Your task to perform on an android device: toggle sleep mode Image 0: 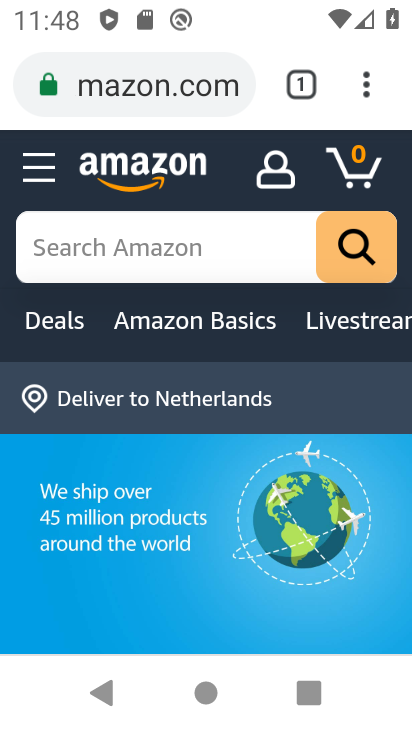
Step 0: press home button
Your task to perform on an android device: toggle sleep mode Image 1: 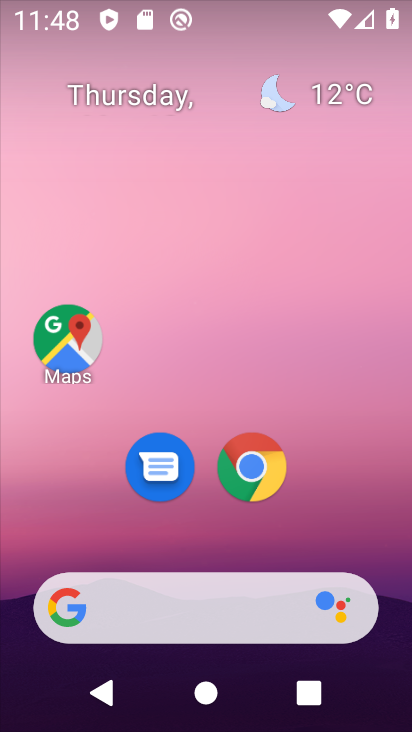
Step 1: drag from (390, 486) to (396, 288)
Your task to perform on an android device: toggle sleep mode Image 2: 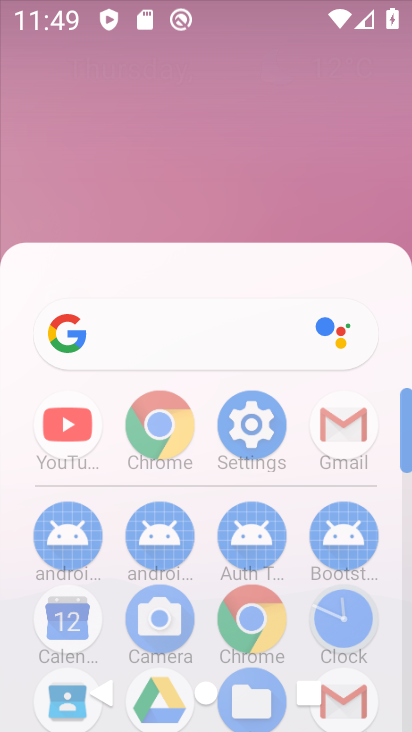
Step 2: drag from (367, 346) to (412, 150)
Your task to perform on an android device: toggle sleep mode Image 3: 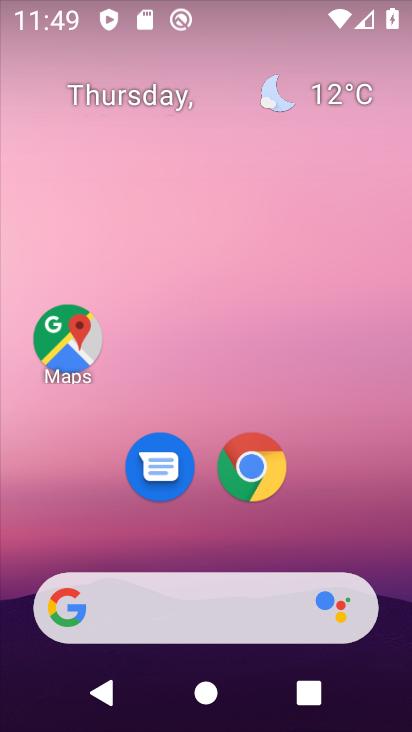
Step 3: drag from (362, 498) to (410, 117)
Your task to perform on an android device: toggle sleep mode Image 4: 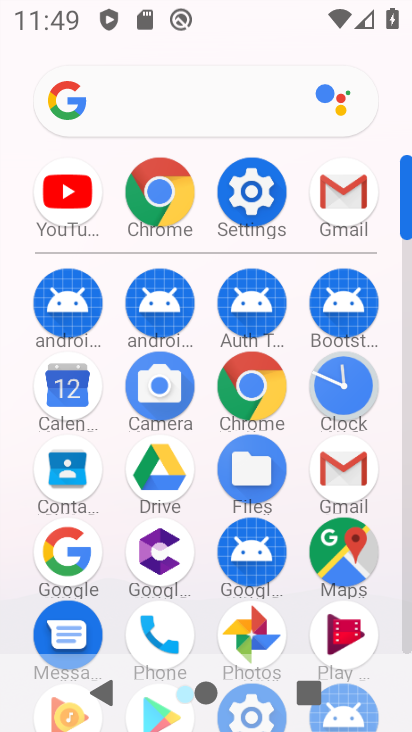
Step 4: click (268, 202)
Your task to perform on an android device: toggle sleep mode Image 5: 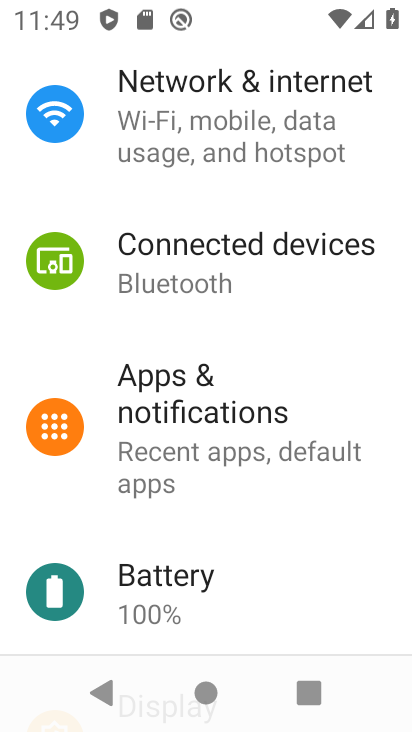
Step 5: drag from (207, 541) to (268, 239)
Your task to perform on an android device: toggle sleep mode Image 6: 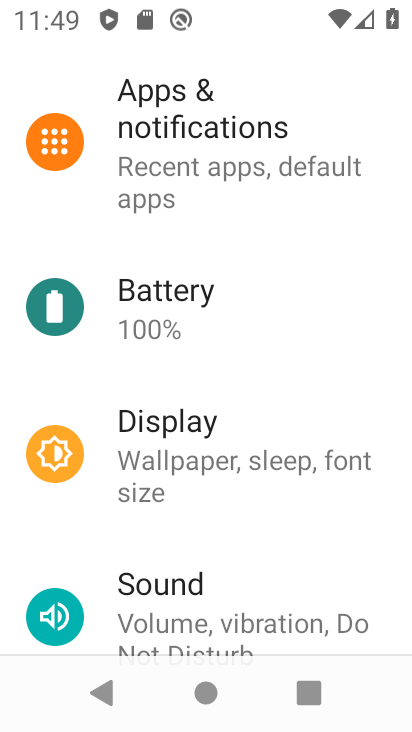
Step 6: click (187, 424)
Your task to perform on an android device: toggle sleep mode Image 7: 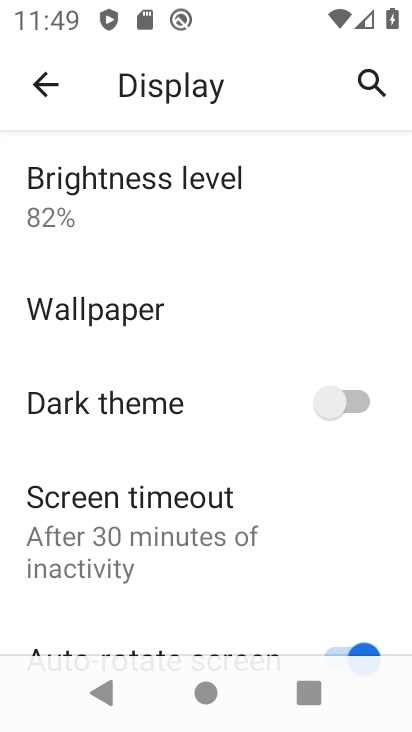
Step 7: click (117, 514)
Your task to perform on an android device: toggle sleep mode Image 8: 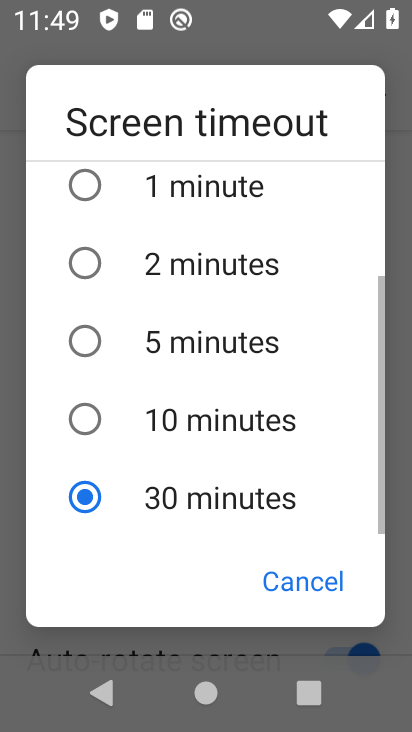
Step 8: click (187, 268)
Your task to perform on an android device: toggle sleep mode Image 9: 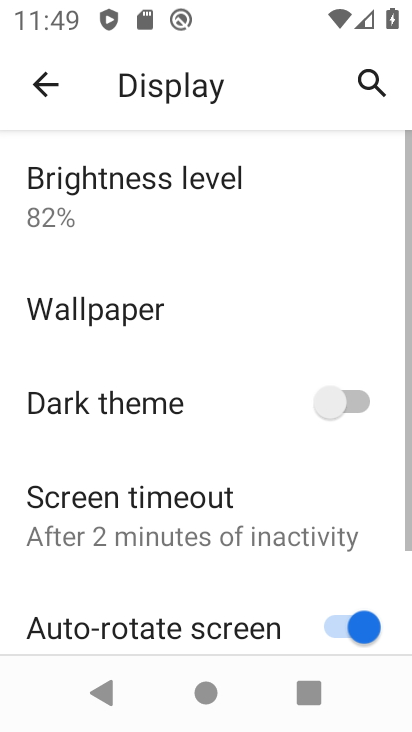
Step 9: task complete